Your task to perform on an android device: open app "YouTube Kids" Image 0: 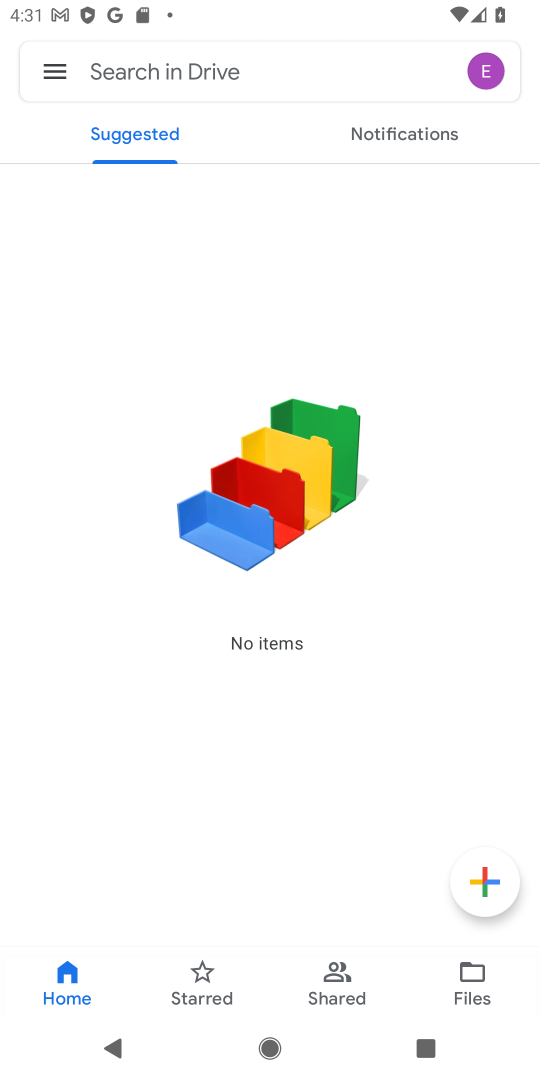
Step 0: press home button
Your task to perform on an android device: open app "YouTube Kids" Image 1: 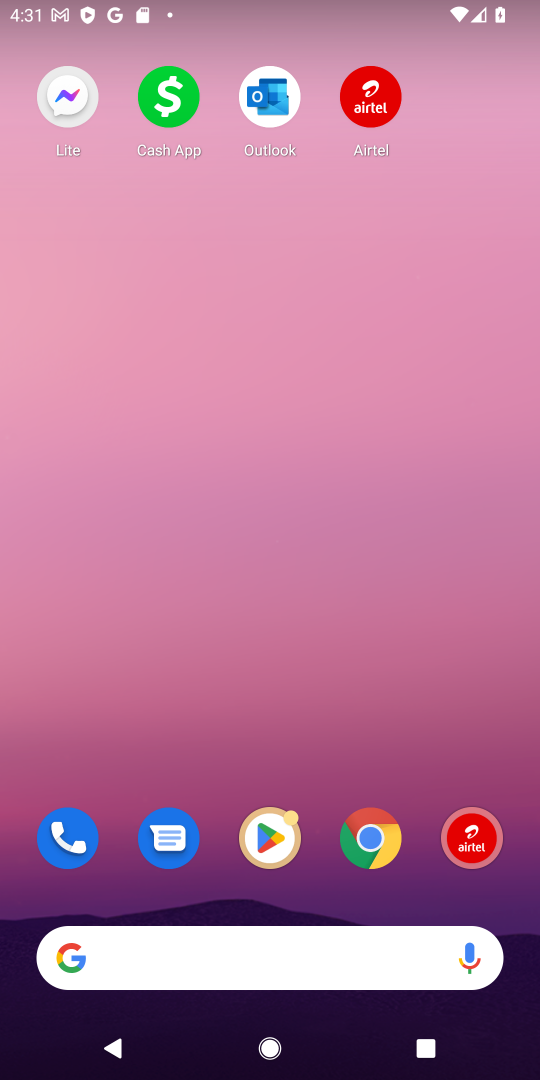
Step 1: drag from (227, 971) to (231, 197)
Your task to perform on an android device: open app "YouTube Kids" Image 2: 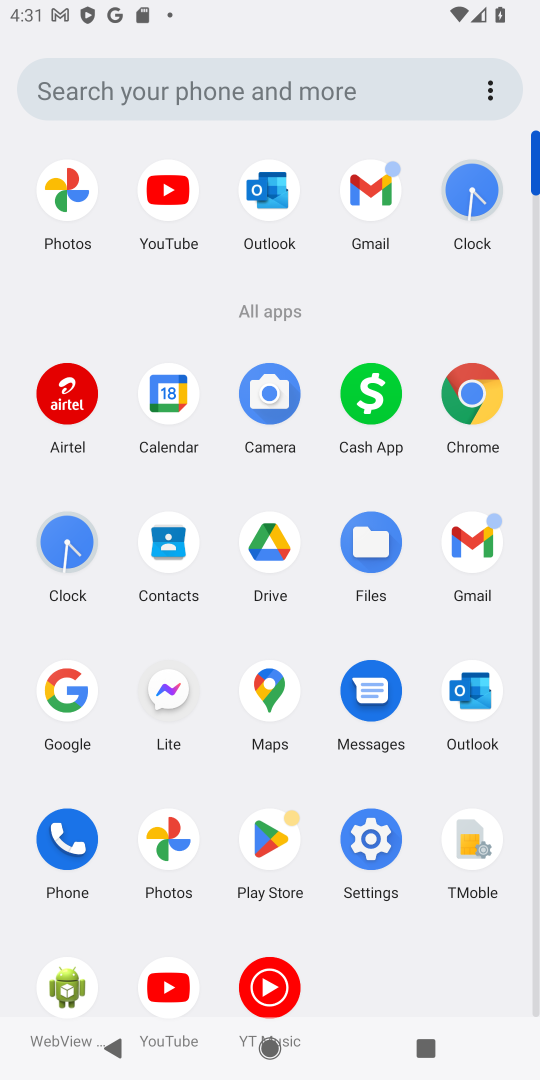
Step 2: click (265, 838)
Your task to perform on an android device: open app "YouTube Kids" Image 3: 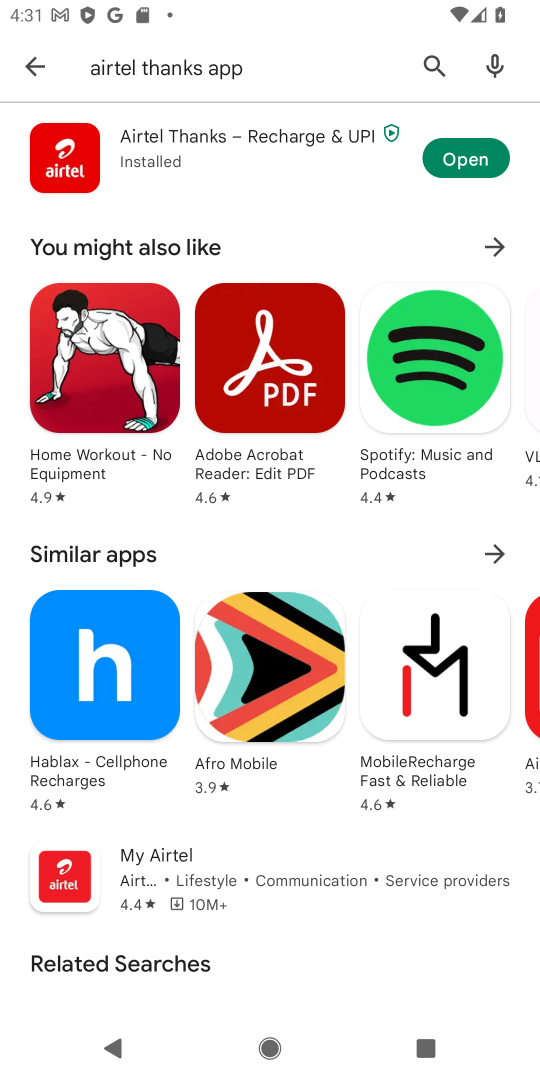
Step 3: press back button
Your task to perform on an android device: open app "YouTube Kids" Image 4: 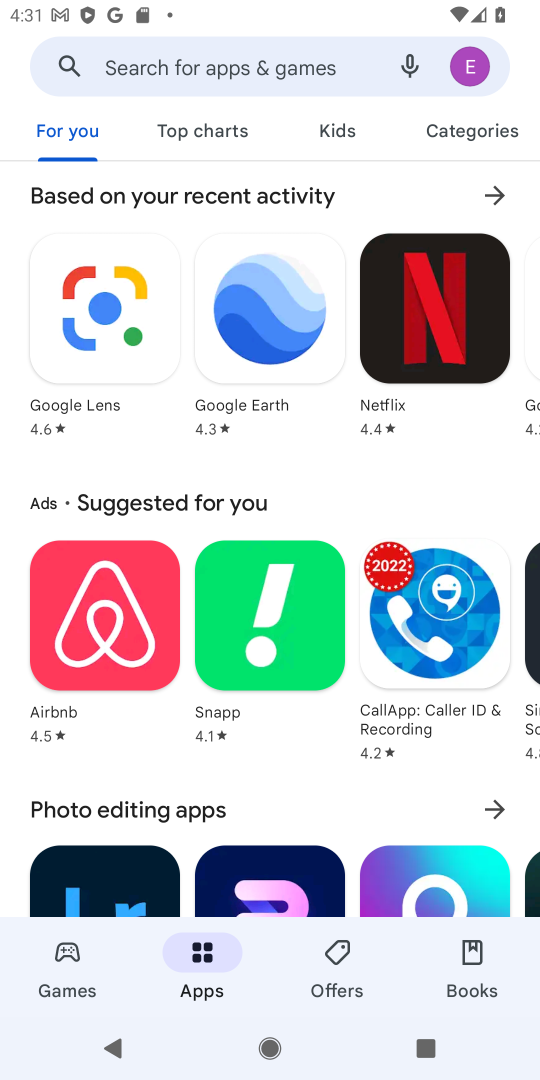
Step 4: click (215, 54)
Your task to perform on an android device: open app "YouTube Kids" Image 5: 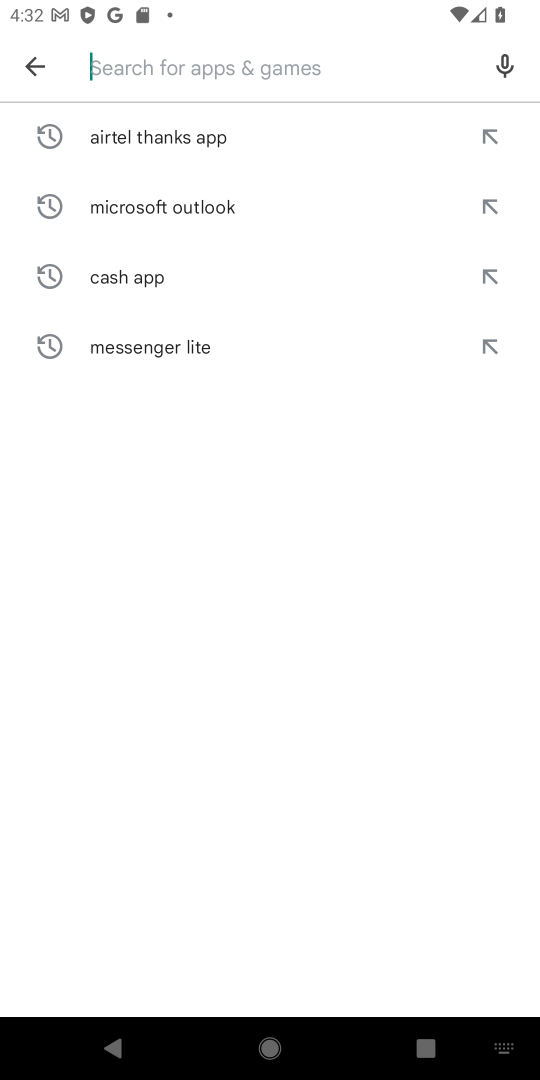
Step 5: type "YouTube Kids"
Your task to perform on an android device: open app "YouTube Kids" Image 6: 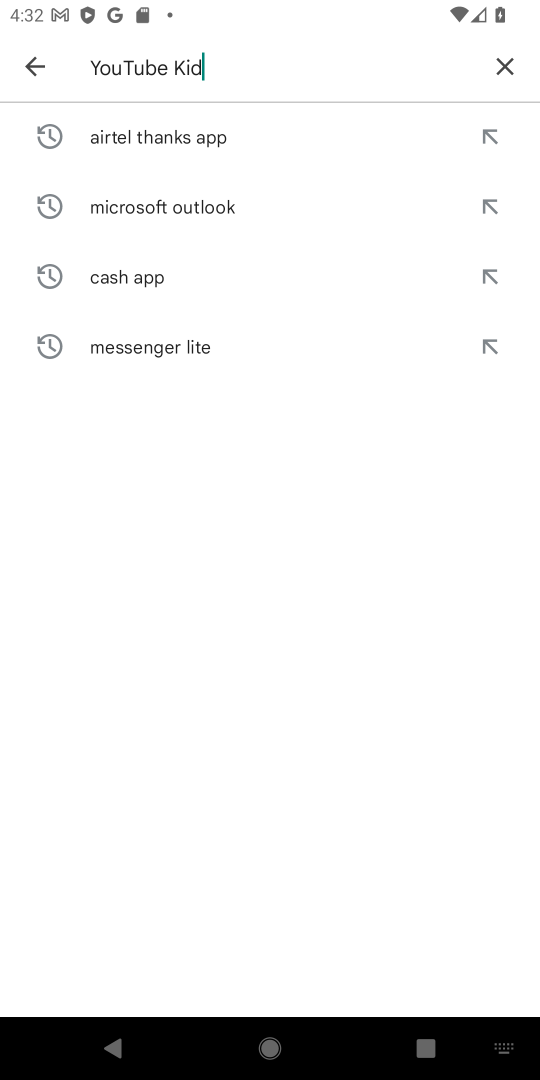
Step 6: type ""
Your task to perform on an android device: open app "YouTube Kids" Image 7: 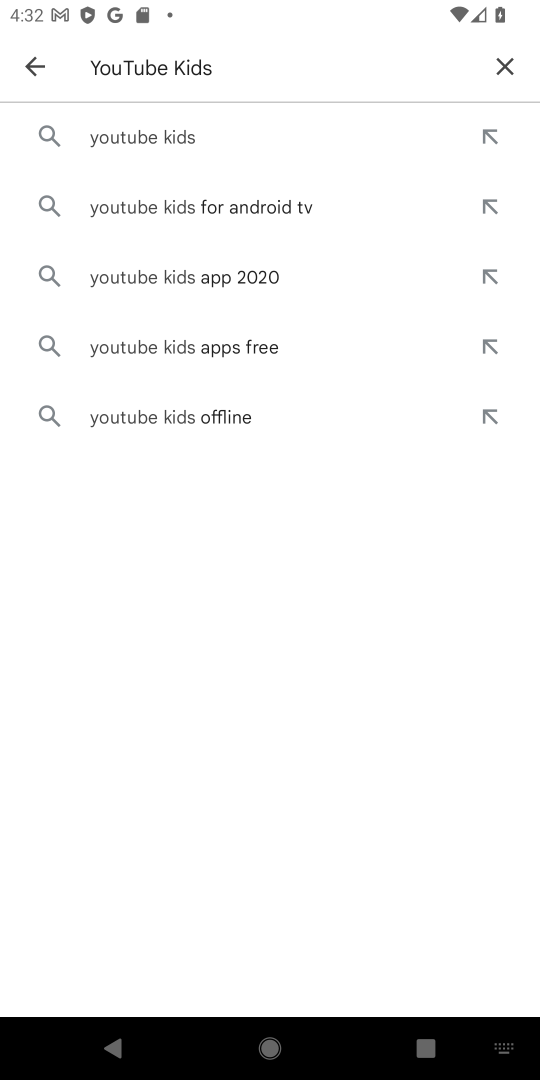
Step 7: click (125, 131)
Your task to perform on an android device: open app "YouTube Kids" Image 8: 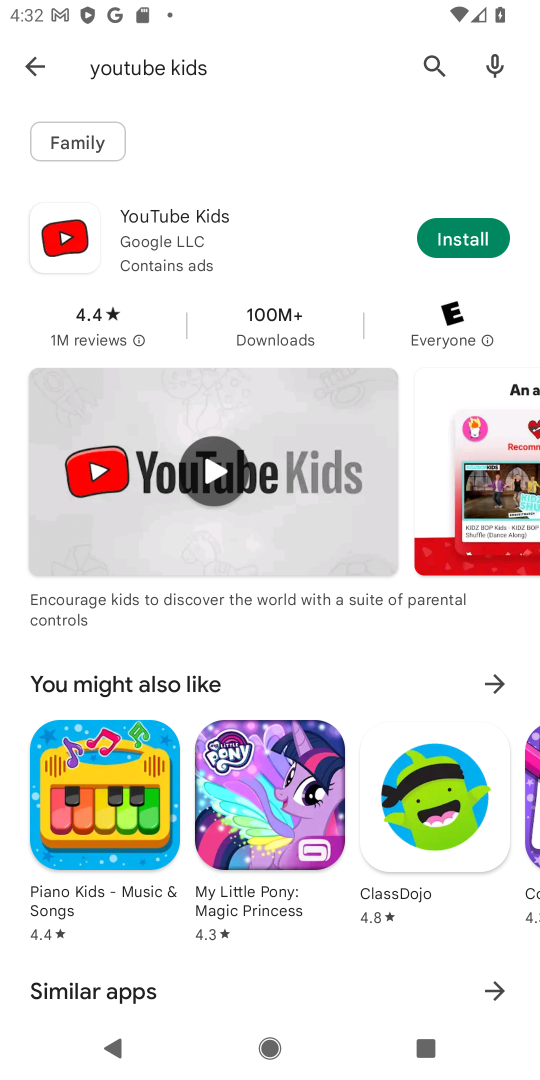
Step 8: task complete